Your task to perform on an android device: uninstall "Airtel Thanks" Image 0: 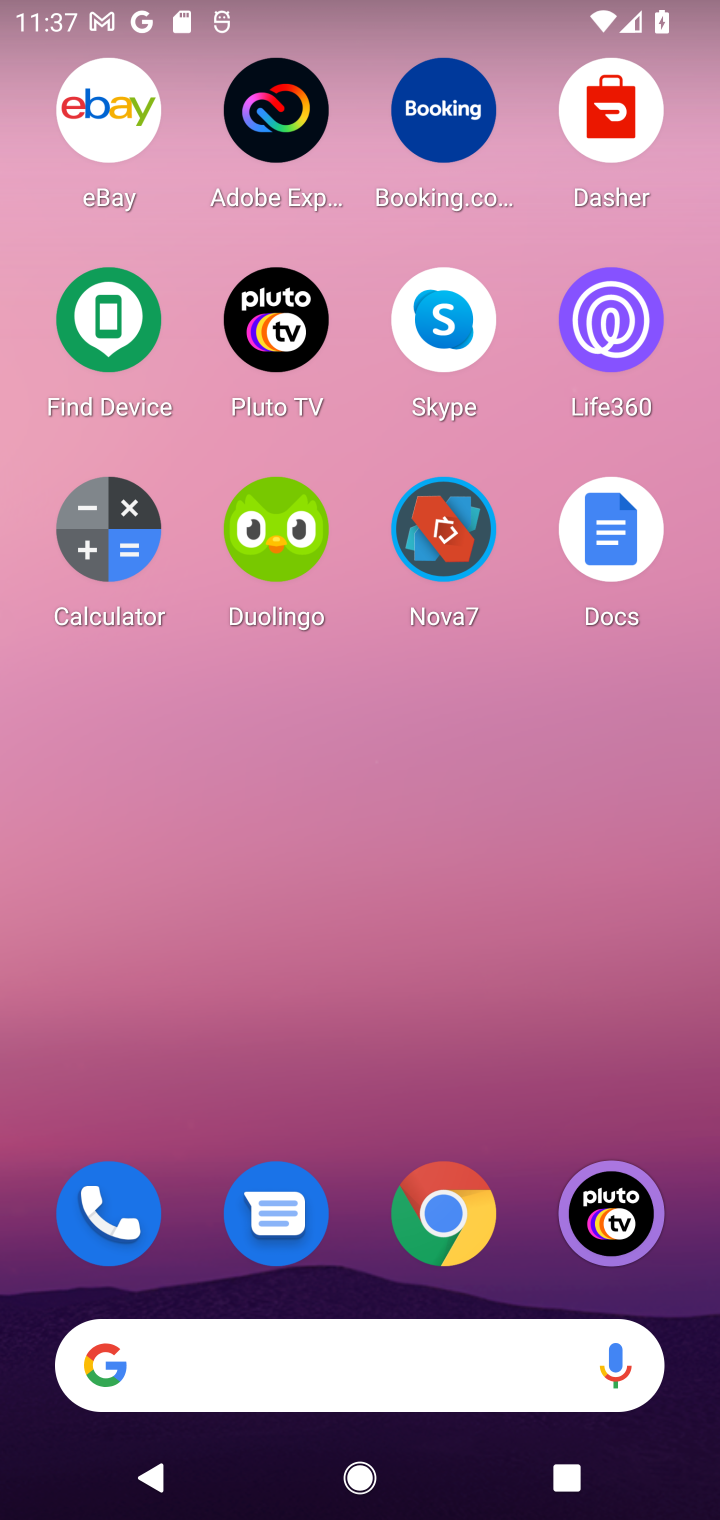
Step 0: press home button
Your task to perform on an android device: uninstall "Airtel Thanks" Image 1: 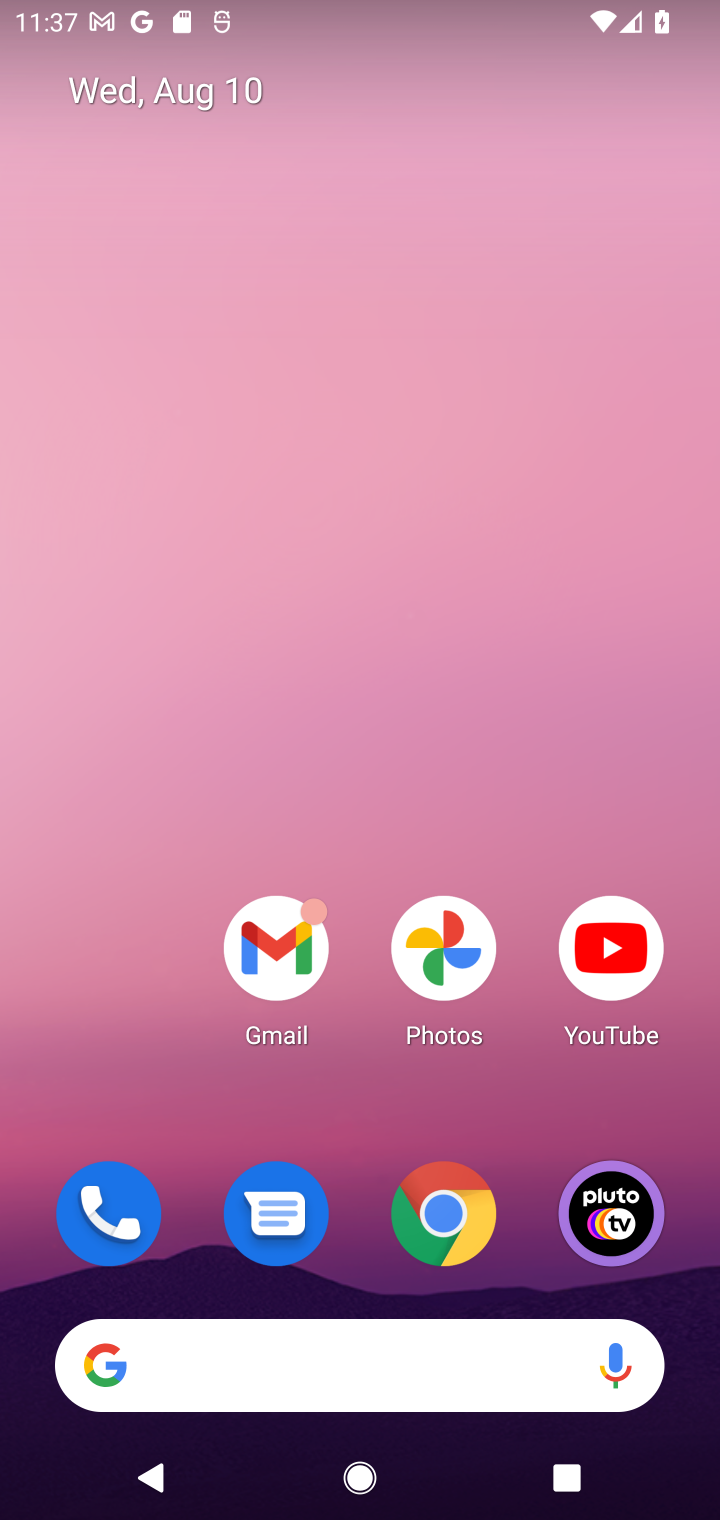
Step 1: drag from (234, 1366) to (461, 246)
Your task to perform on an android device: uninstall "Airtel Thanks" Image 2: 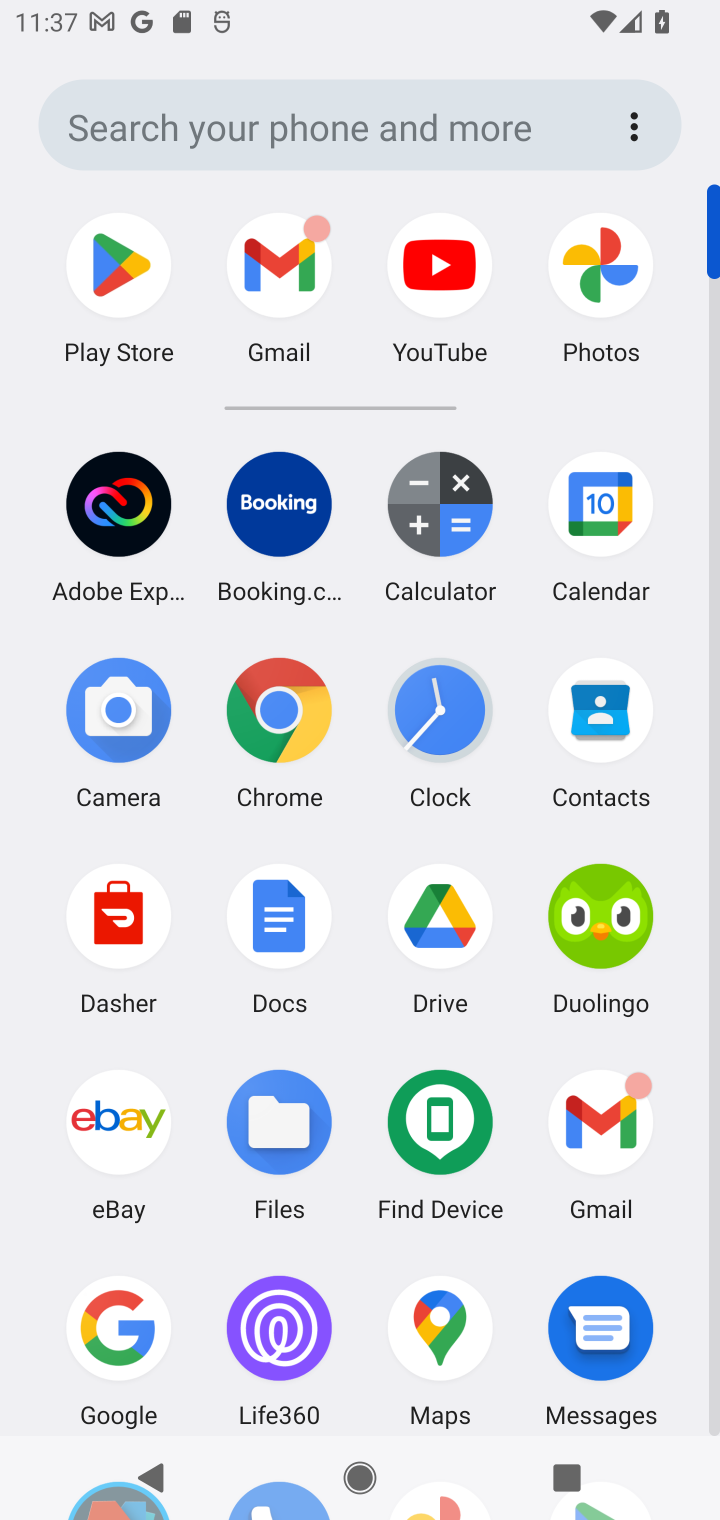
Step 2: drag from (360, 1219) to (338, 718)
Your task to perform on an android device: uninstall "Airtel Thanks" Image 3: 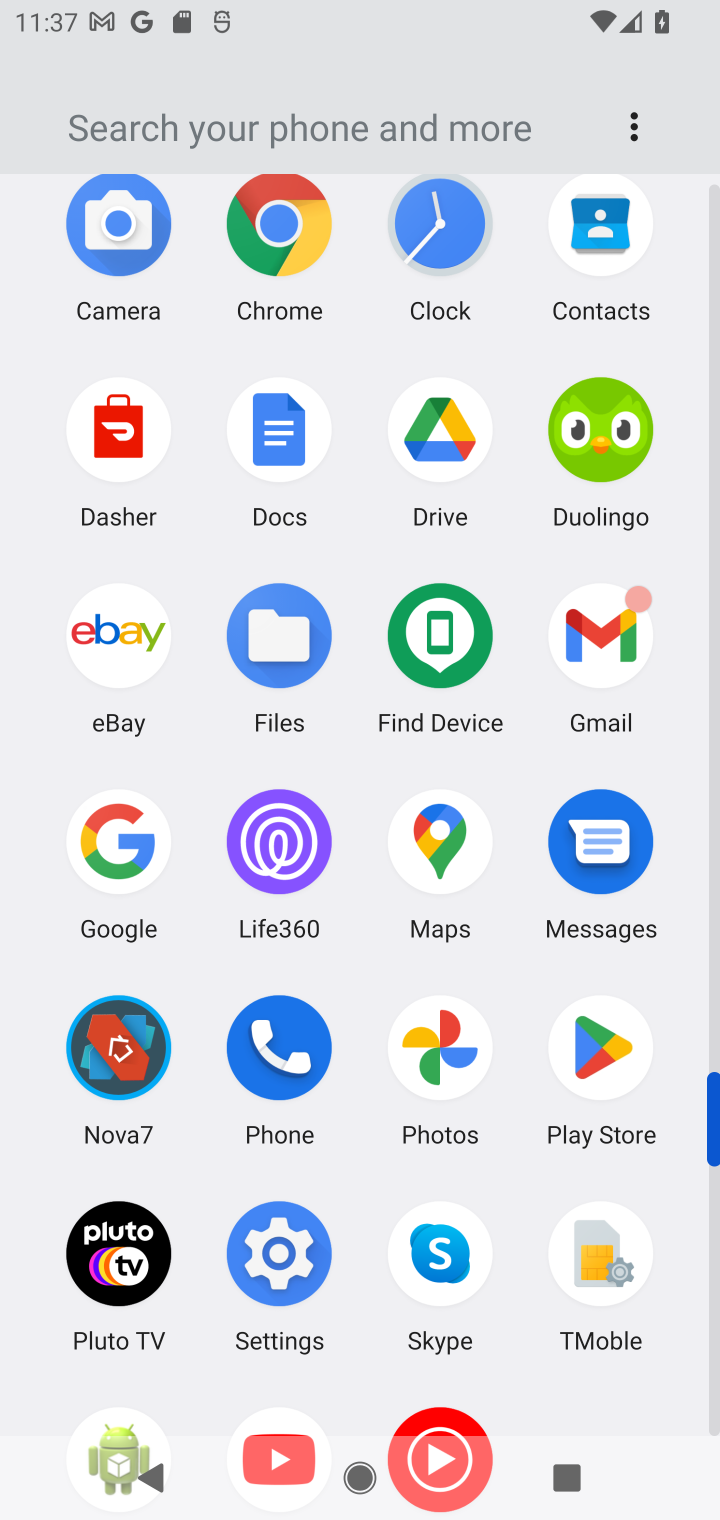
Step 3: click (608, 1058)
Your task to perform on an android device: uninstall "Airtel Thanks" Image 4: 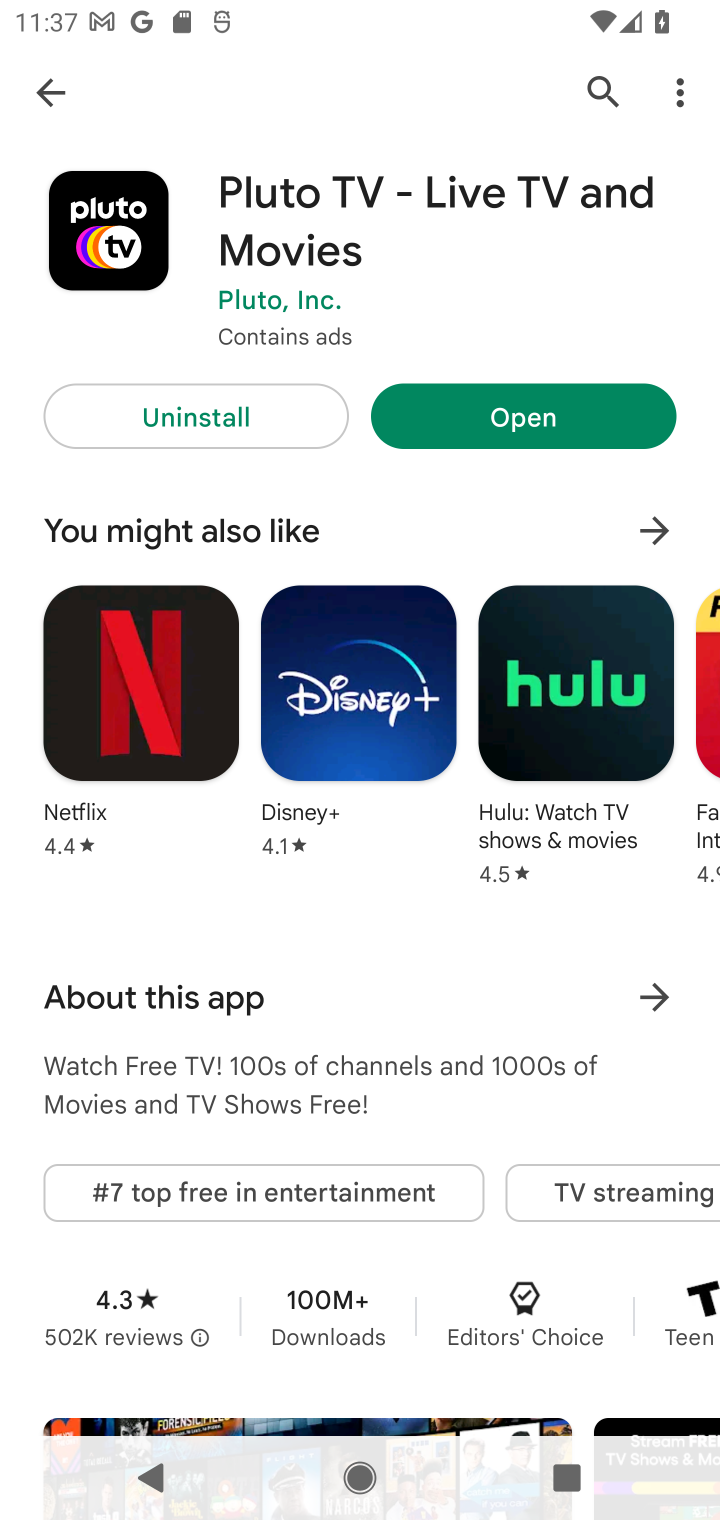
Step 4: press back button
Your task to perform on an android device: uninstall "Airtel Thanks" Image 5: 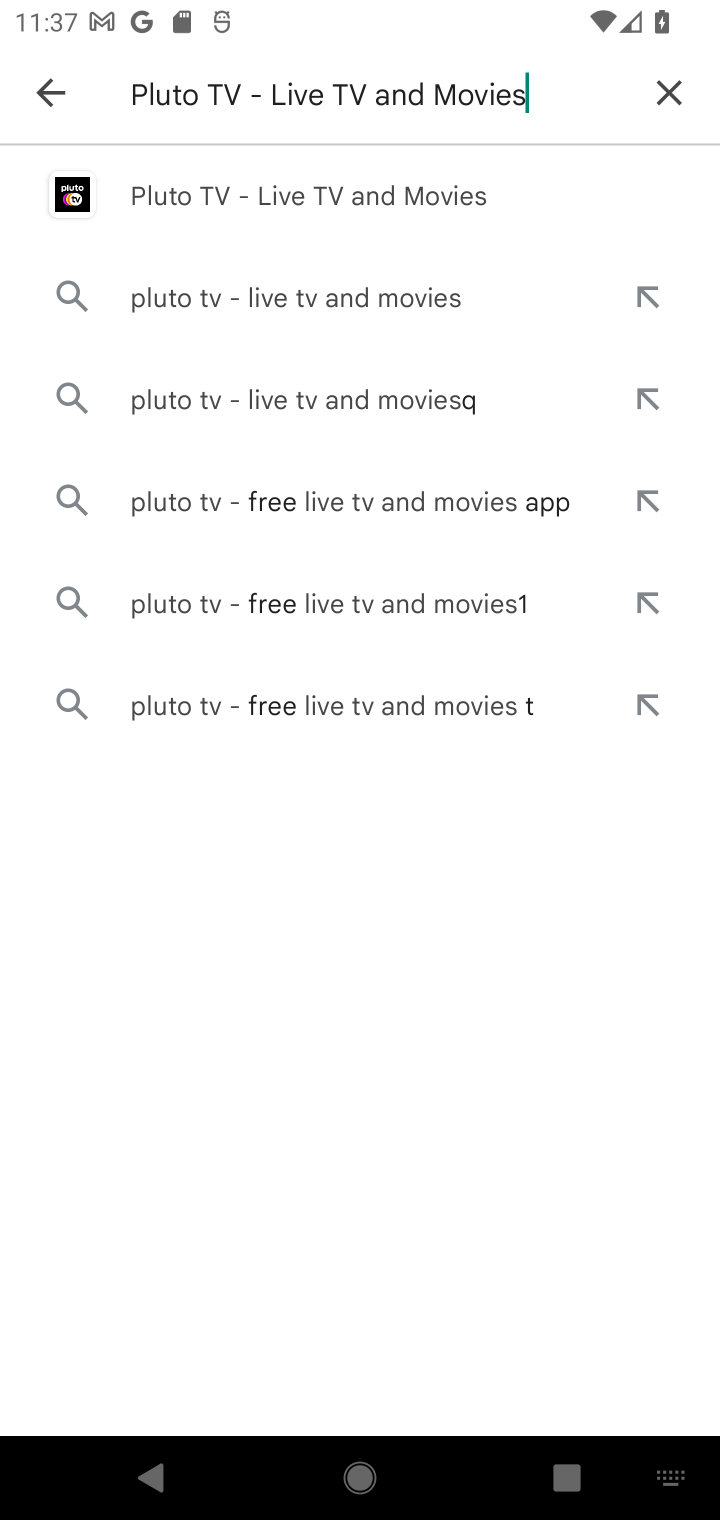
Step 5: press back button
Your task to perform on an android device: uninstall "Airtel Thanks" Image 6: 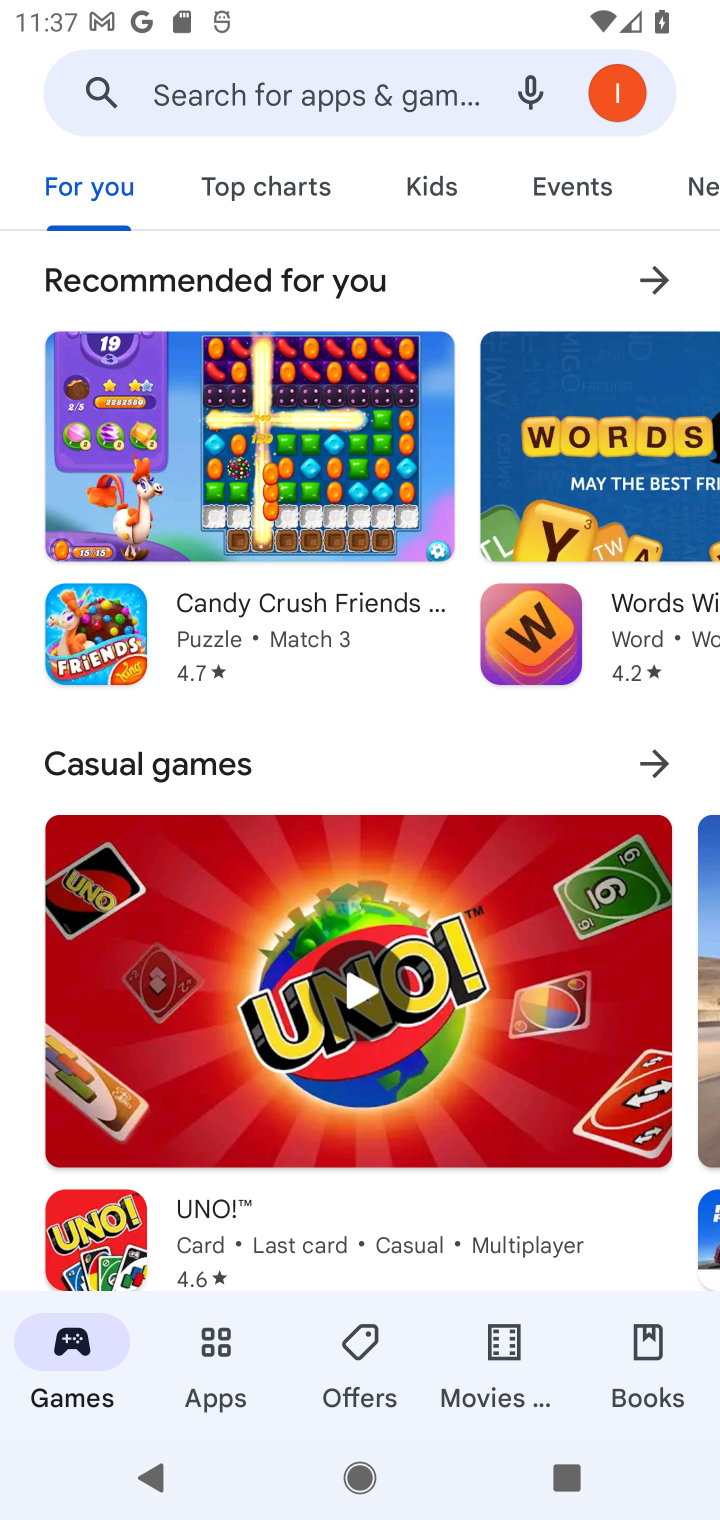
Step 6: click (411, 99)
Your task to perform on an android device: uninstall "Airtel Thanks" Image 7: 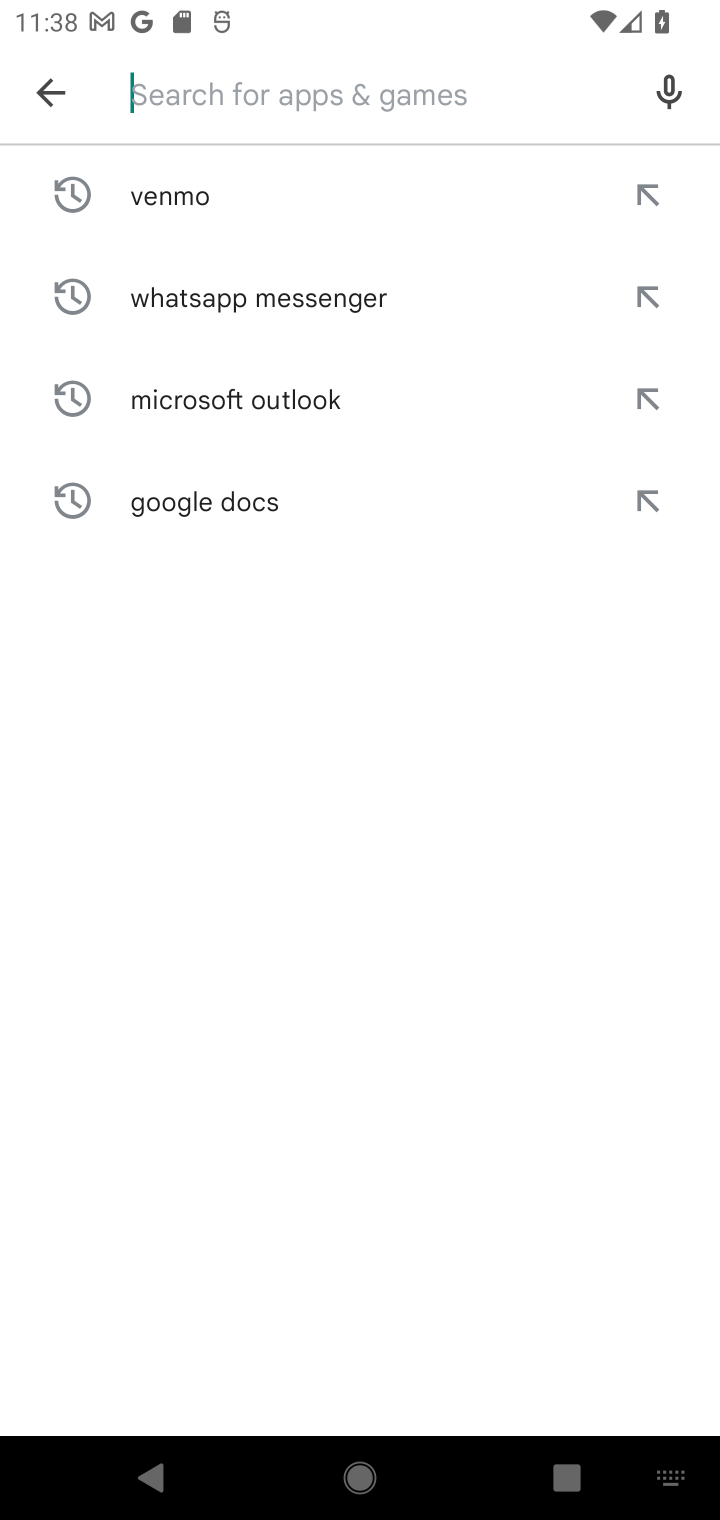
Step 7: click (441, 97)
Your task to perform on an android device: uninstall "Airtel Thanks" Image 8: 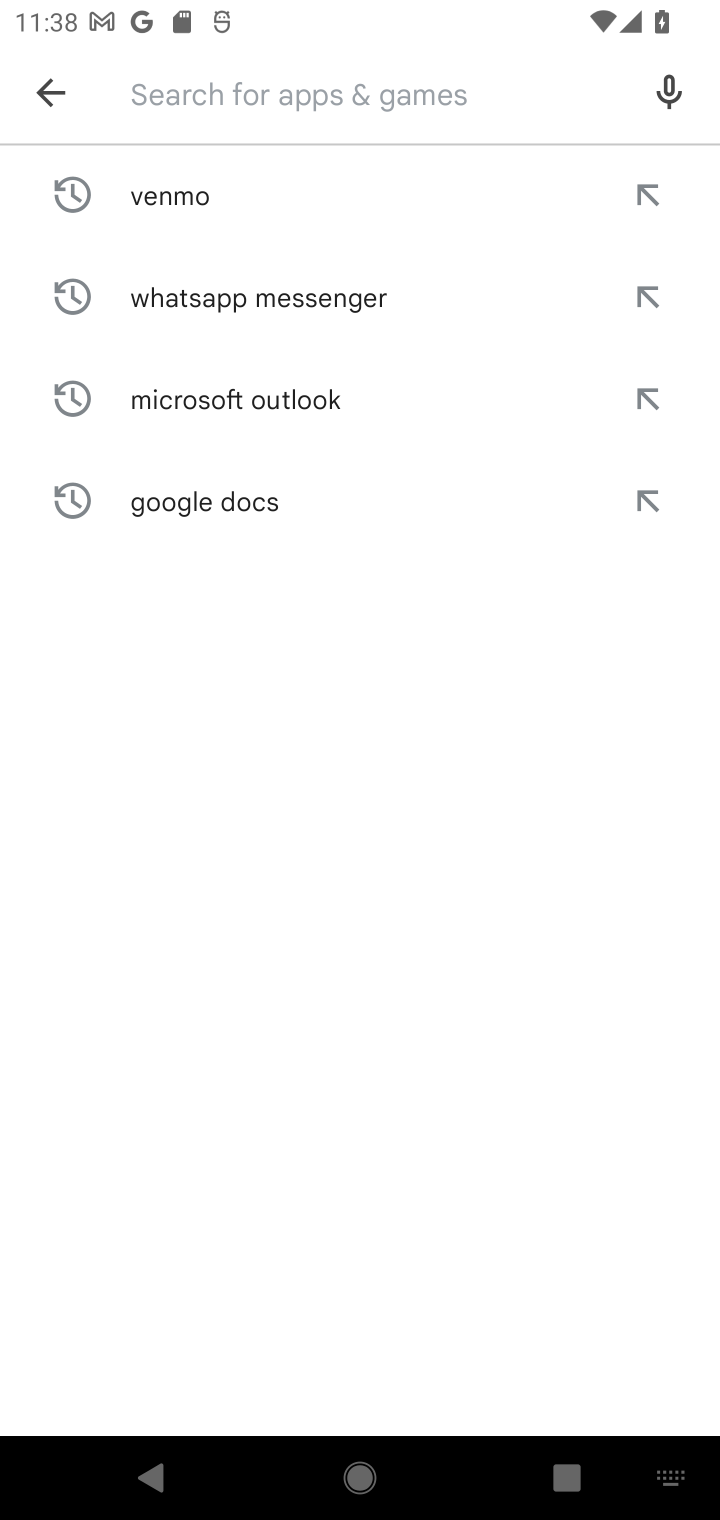
Step 8: type "Airtel Thanks"
Your task to perform on an android device: uninstall "Airtel Thanks" Image 9: 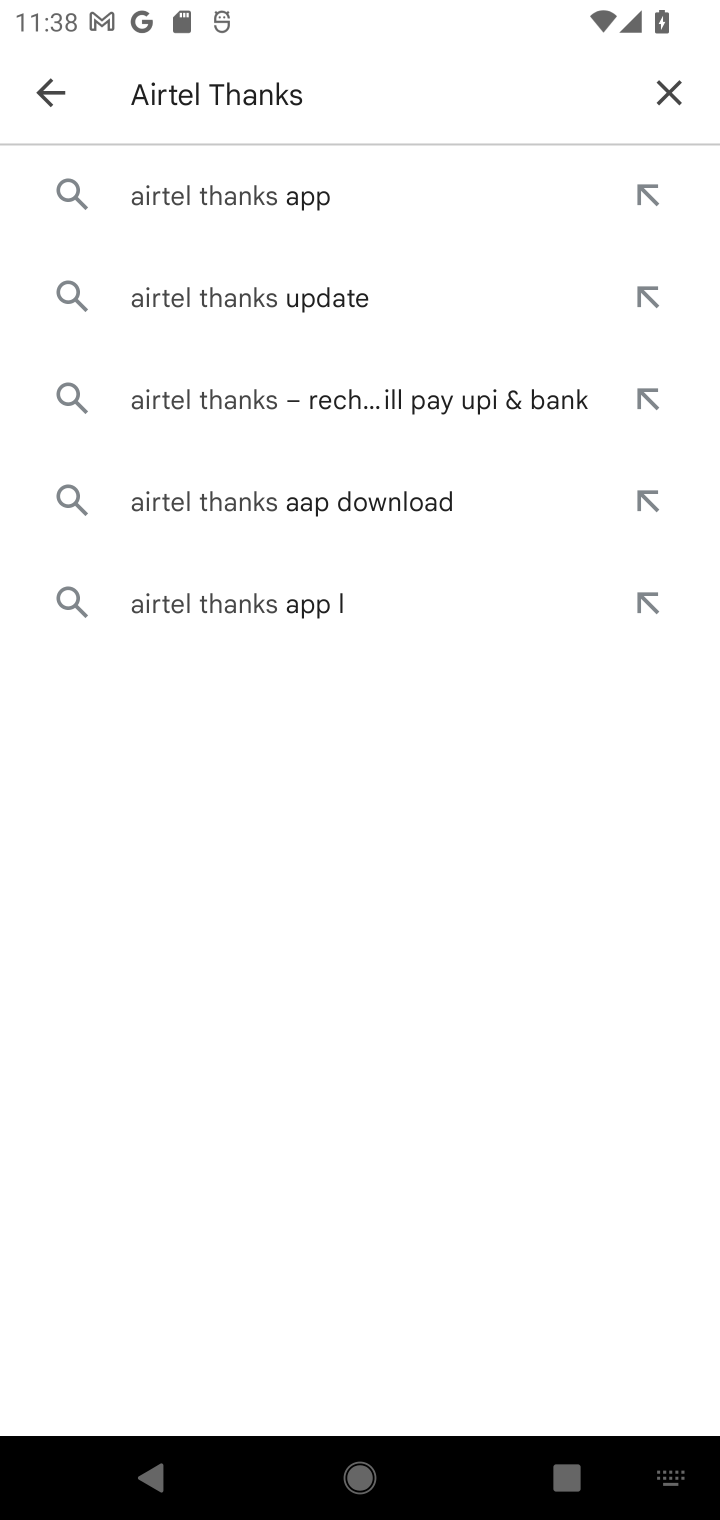
Step 9: click (333, 226)
Your task to perform on an android device: uninstall "Airtel Thanks" Image 10: 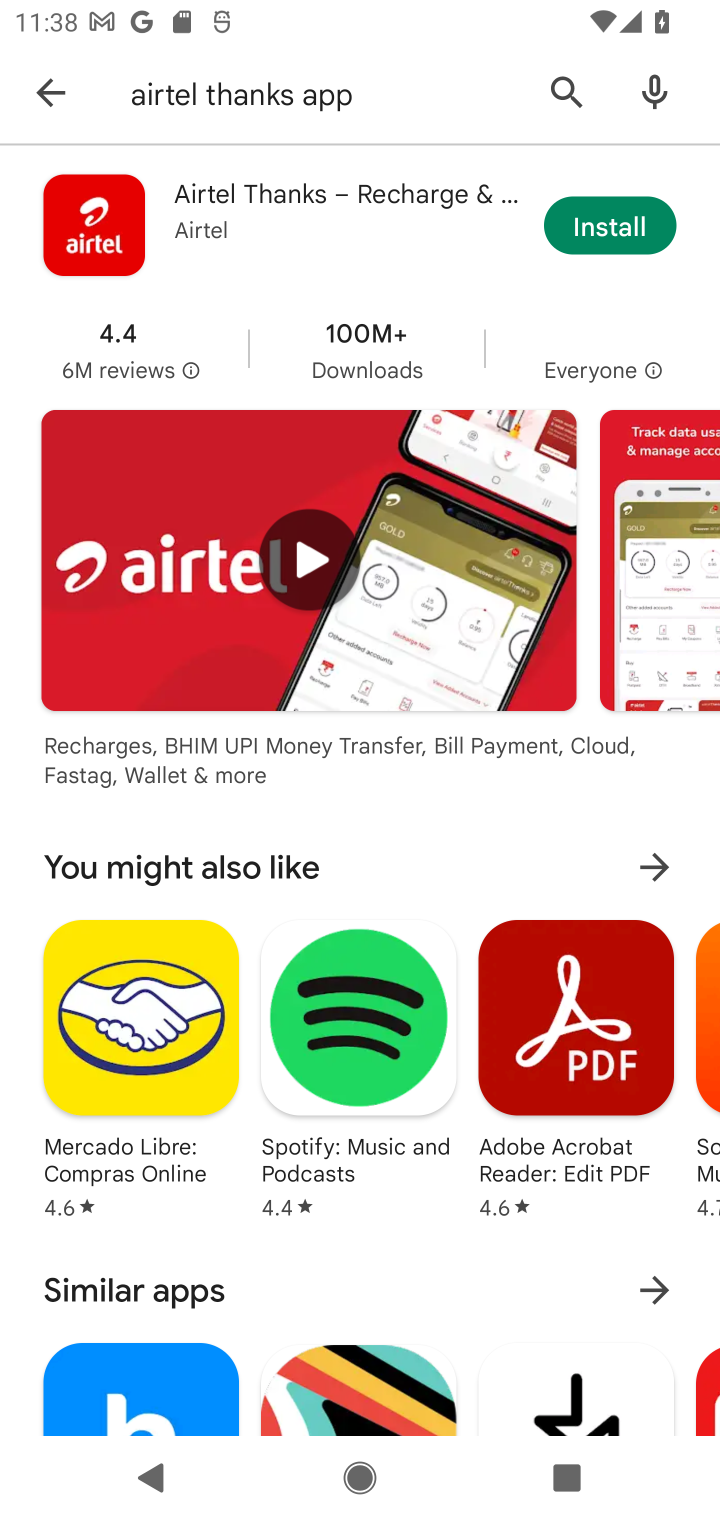
Step 10: task complete